Your task to perform on an android device: toggle improve location accuracy Image 0: 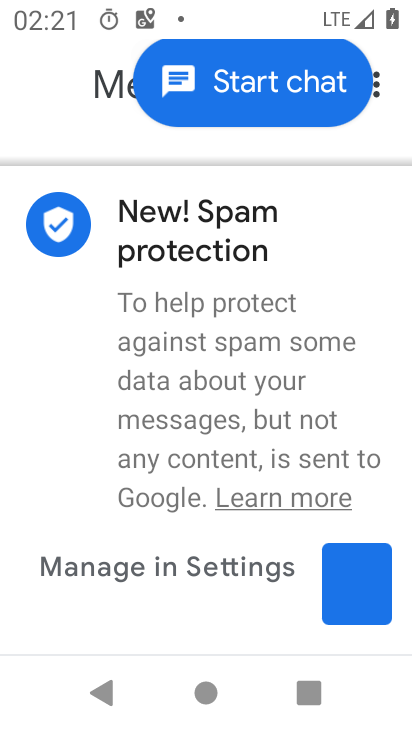
Step 0: press home button
Your task to perform on an android device: toggle improve location accuracy Image 1: 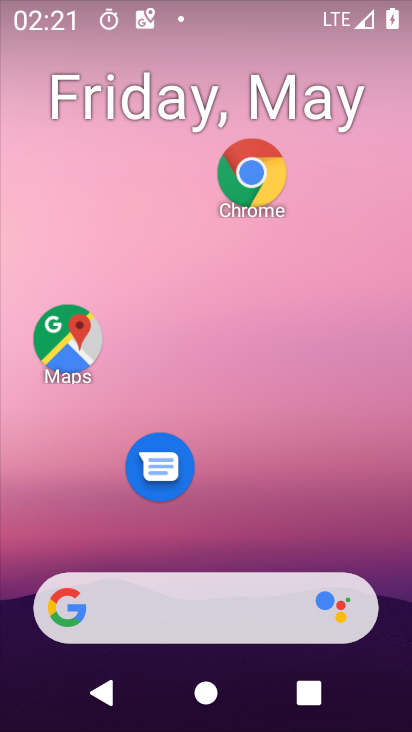
Step 1: drag from (249, 648) to (258, 224)
Your task to perform on an android device: toggle improve location accuracy Image 2: 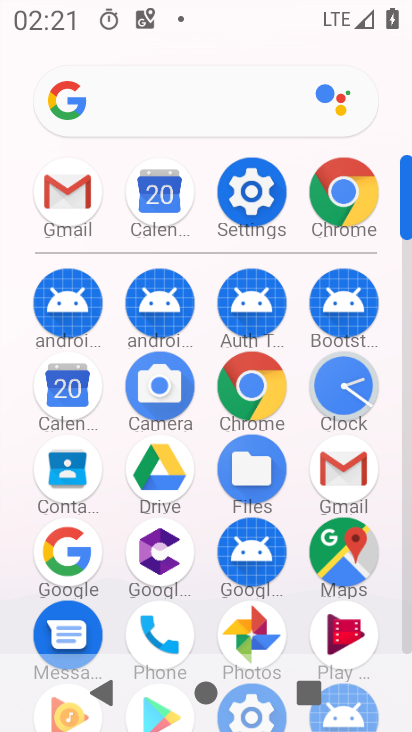
Step 2: click (249, 221)
Your task to perform on an android device: toggle improve location accuracy Image 3: 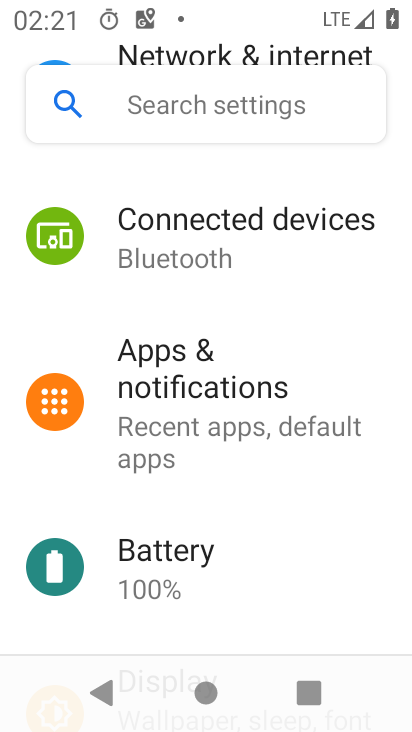
Step 3: click (178, 123)
Your task to perform on an android device: toggle improve location accuracy Image 4: 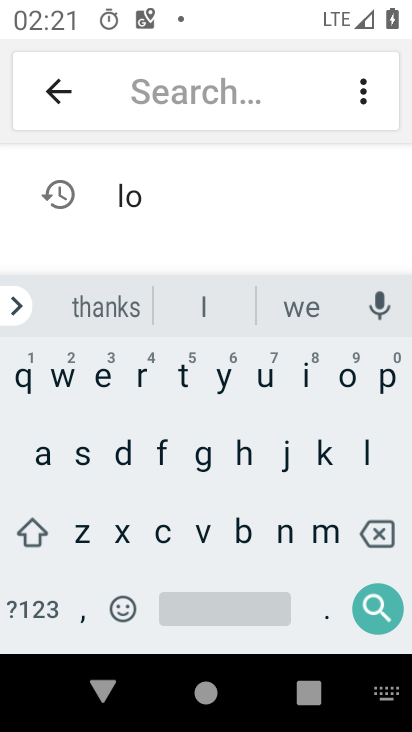
Step 4: click (155, 201)
Your task to perform on an android device: toggle improve location accuracy Image 5: 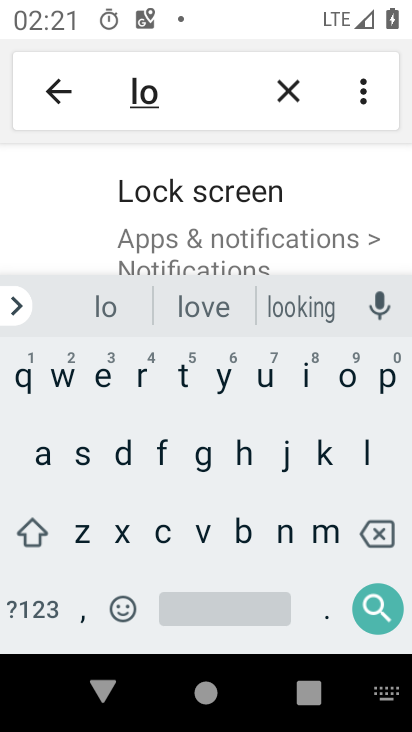
Step 5: drag from (171, 262) to (192, 149)
Your task to perform on an android device: toggle improve location accuracy Image 6: 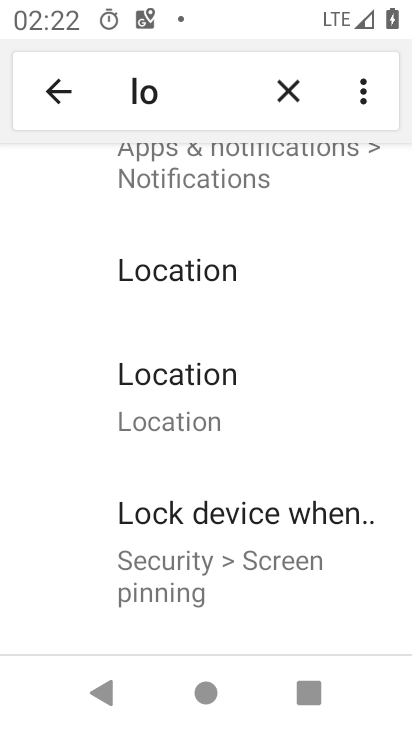
Step 6: click (226, 392)
Your task to perform on an android device: toggle improve location accuracy Image 7: 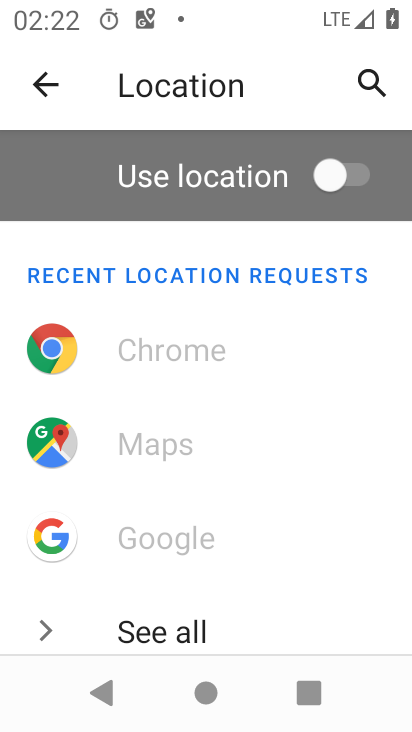
Step 7: drag from (265, 582) to (230, 223)
Your task to perform on an android device: toggle improve location accuracy Image 8: 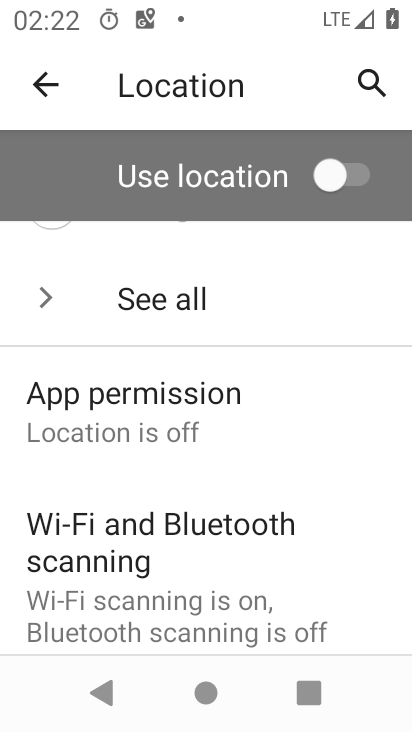
Step 8: drag from (201, 546) to (177, 244)
Your task to perform on an android device: toggle improve location accuracy Image 9: 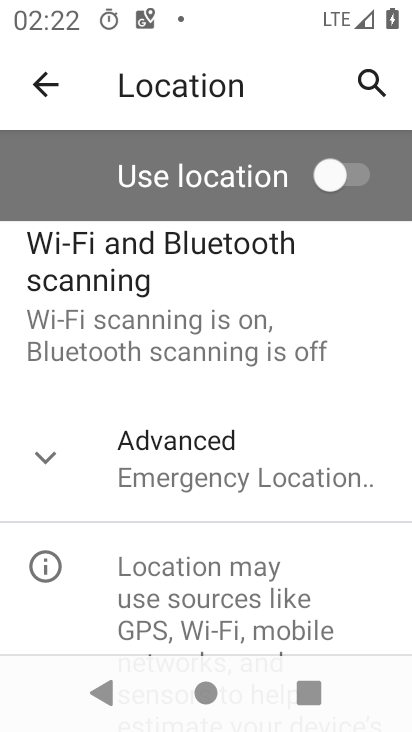
Step 9: click (44, 473)
Your task to perform on an android device: toggle improve location accuracy Image 10: 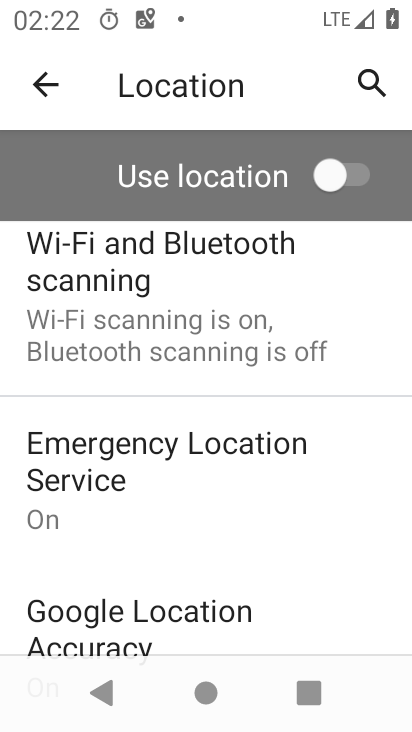
Step 10: click (197, 630)
Your task to perform on an android device: toggle improve location accuracy Image 11: 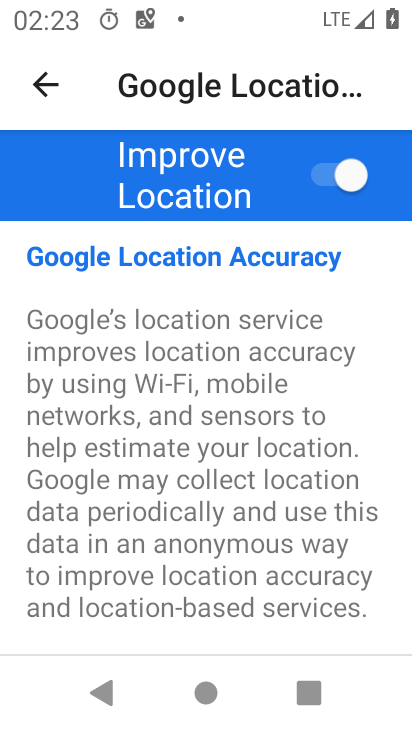
Step 11: task complete